Your task to perform on an android device: open app "Paramount+ | Peak Streaming" Image 0: 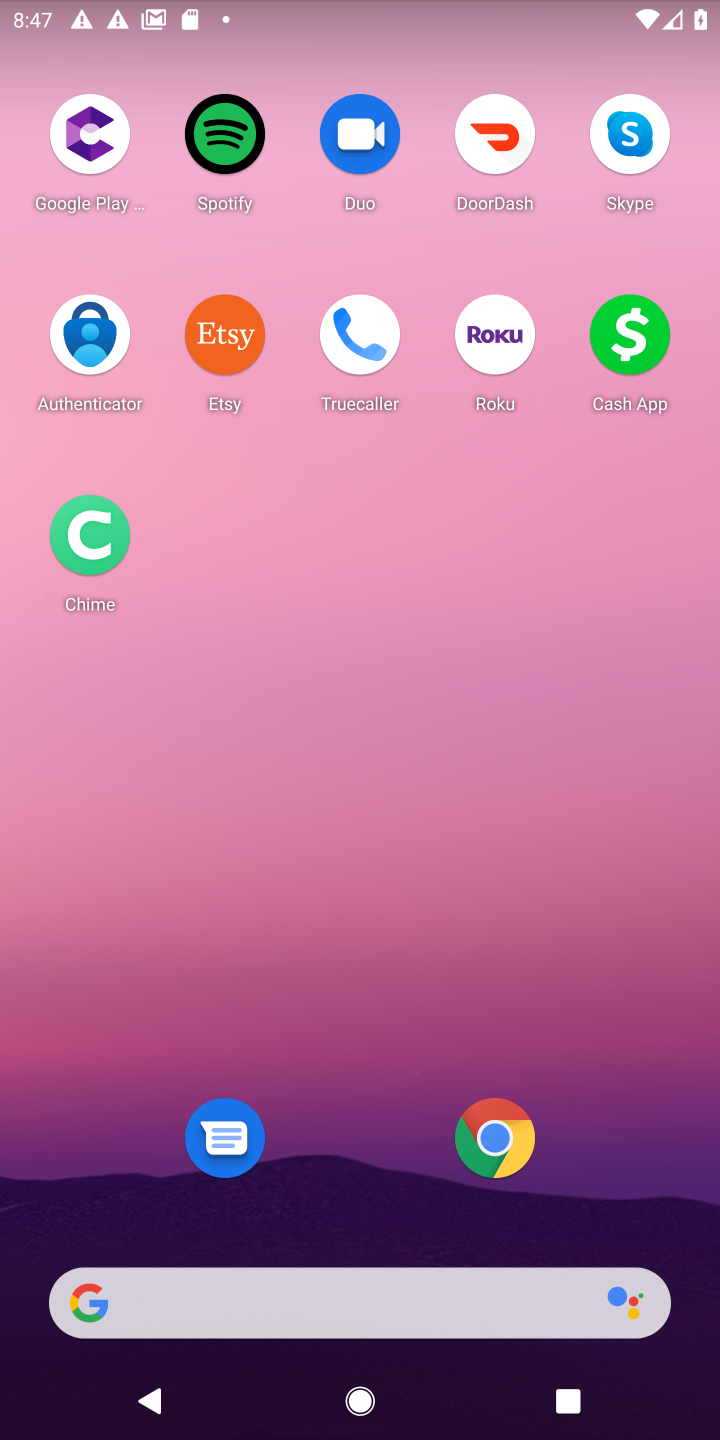
Step 0: drag from (371, 1254) to (441, 106)
Your task to perform on an android device: open app "Paramount+ | Peak Streaming" Image 1: 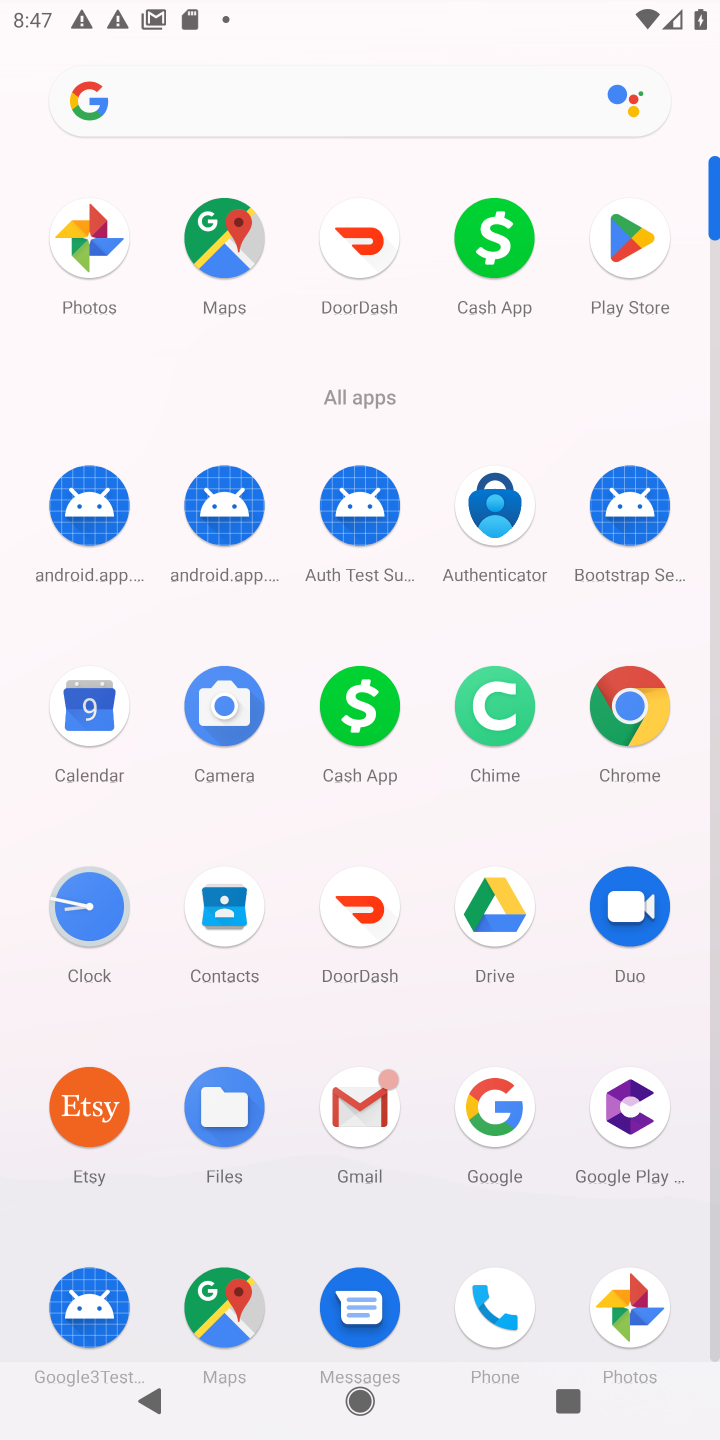
Step 1: click (613, 277)
Your task to perform on an android device: open app "Paramount+ | Peak Streaming" Image 2: 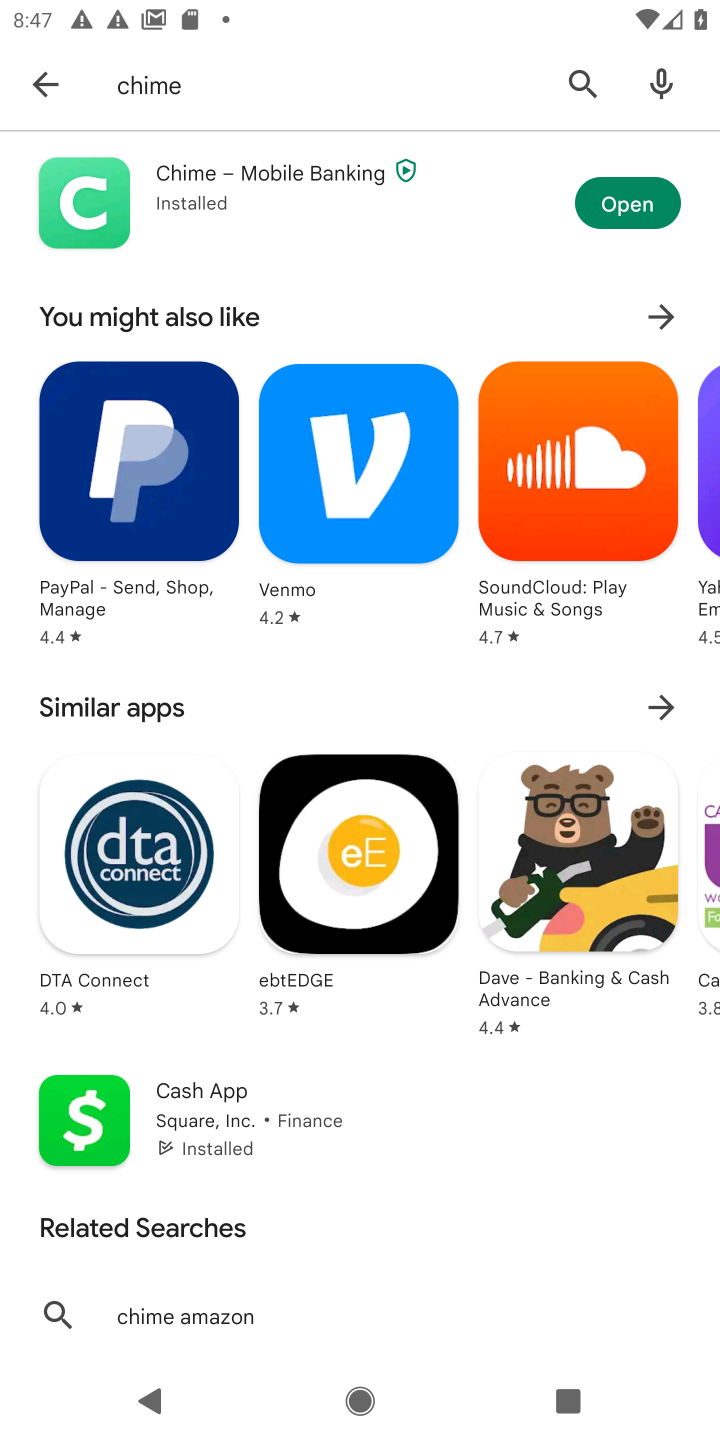
Step 2: click (577, 99)
Your task to perform on an android device: open app "Paramount+ | Peak Streaming" Image 3: 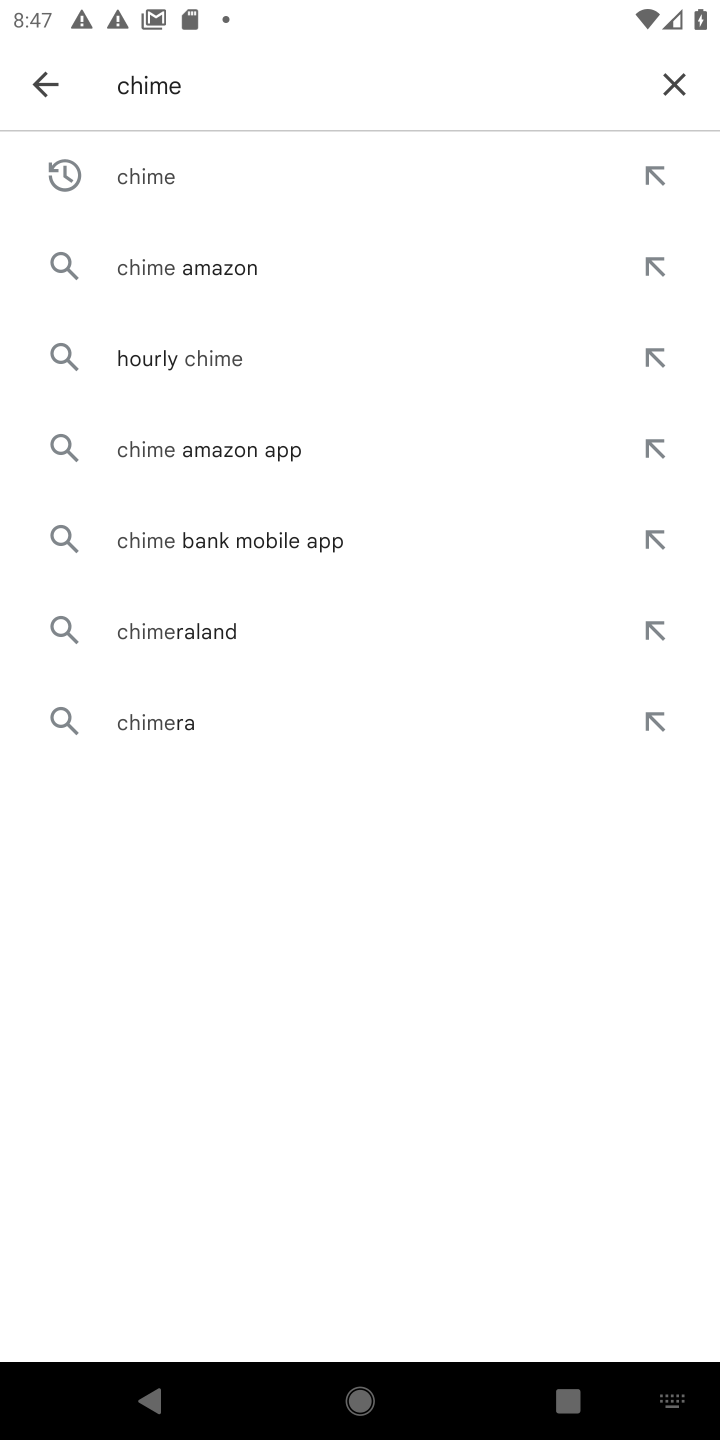
Step 3: click (682, 91)
Your task to perform on an android device: open app "Paramount+ | Peak Streaming" Image 4: 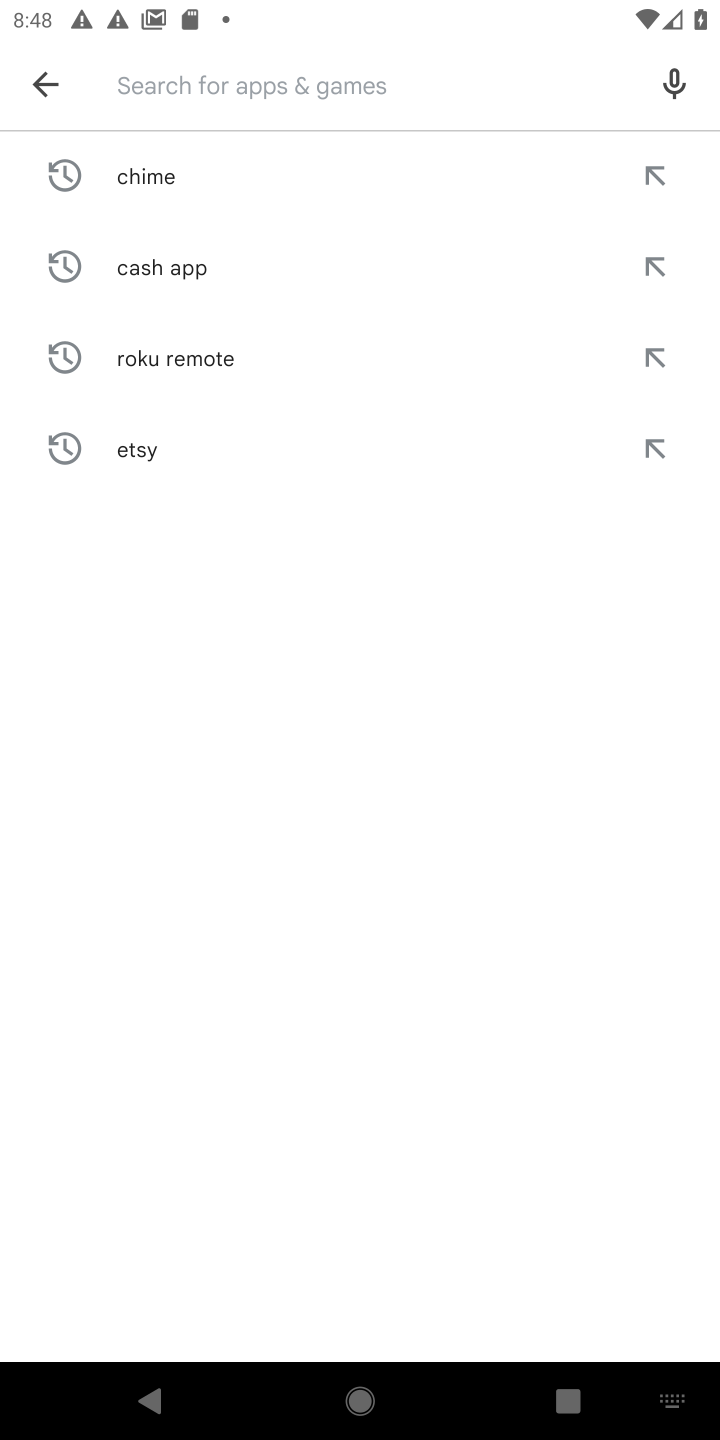
Step 4: type "paramaunt"
Your task to perform on an android device: open app "Paramount+ | Peak Streaming" Image 5: 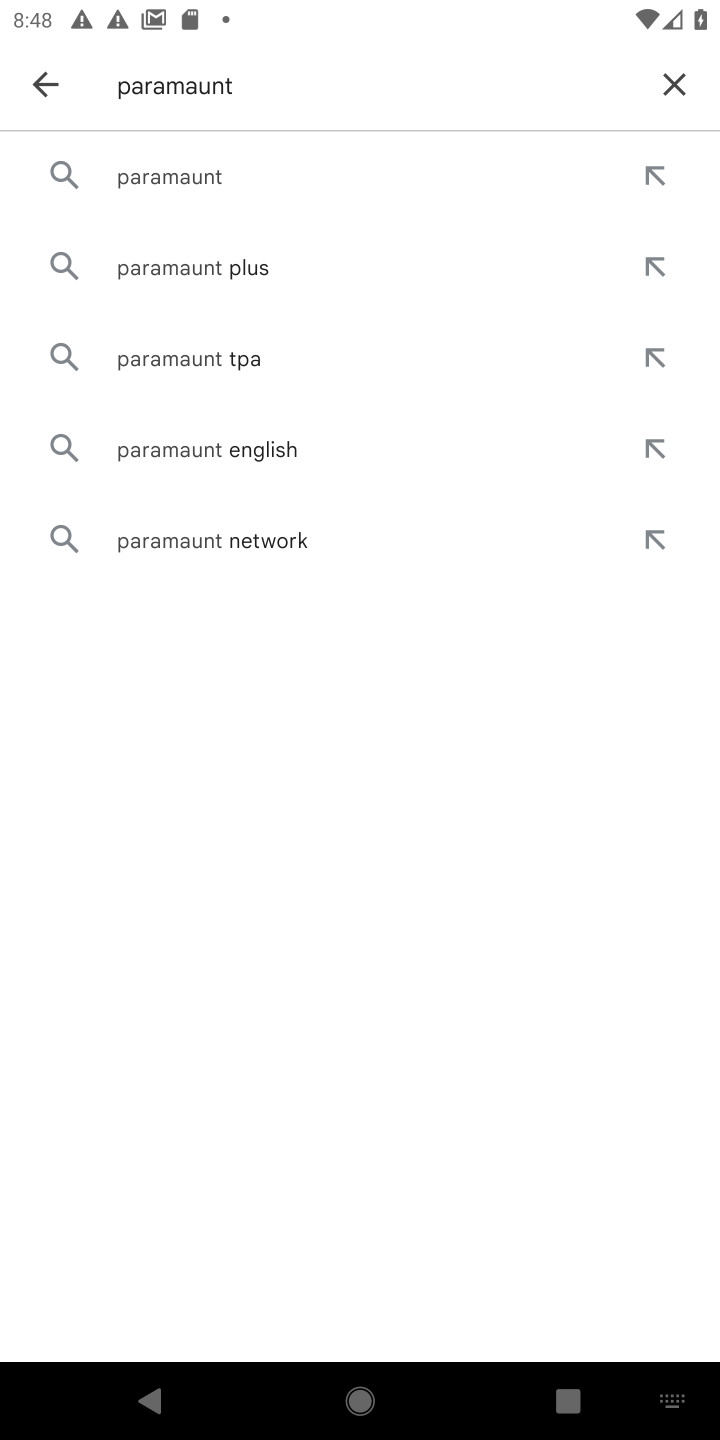
Step 5: click (310, 251)
Your task to perform on an android device: open app "Paramount+ | Peak Streaming" Image 6: 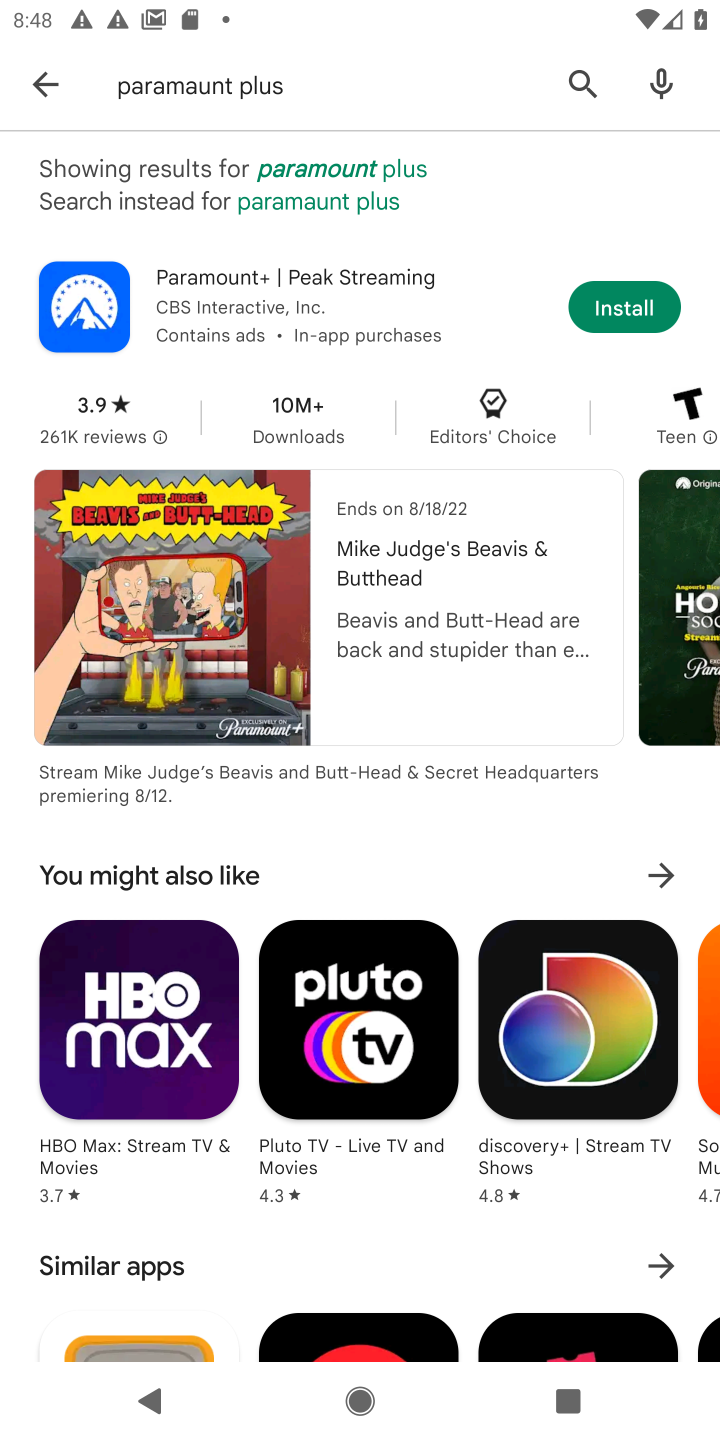
Step 6: click (619, 297)
Your task to perform on an android device: open app "Paramount+ | Peak Streaming" Image 7: 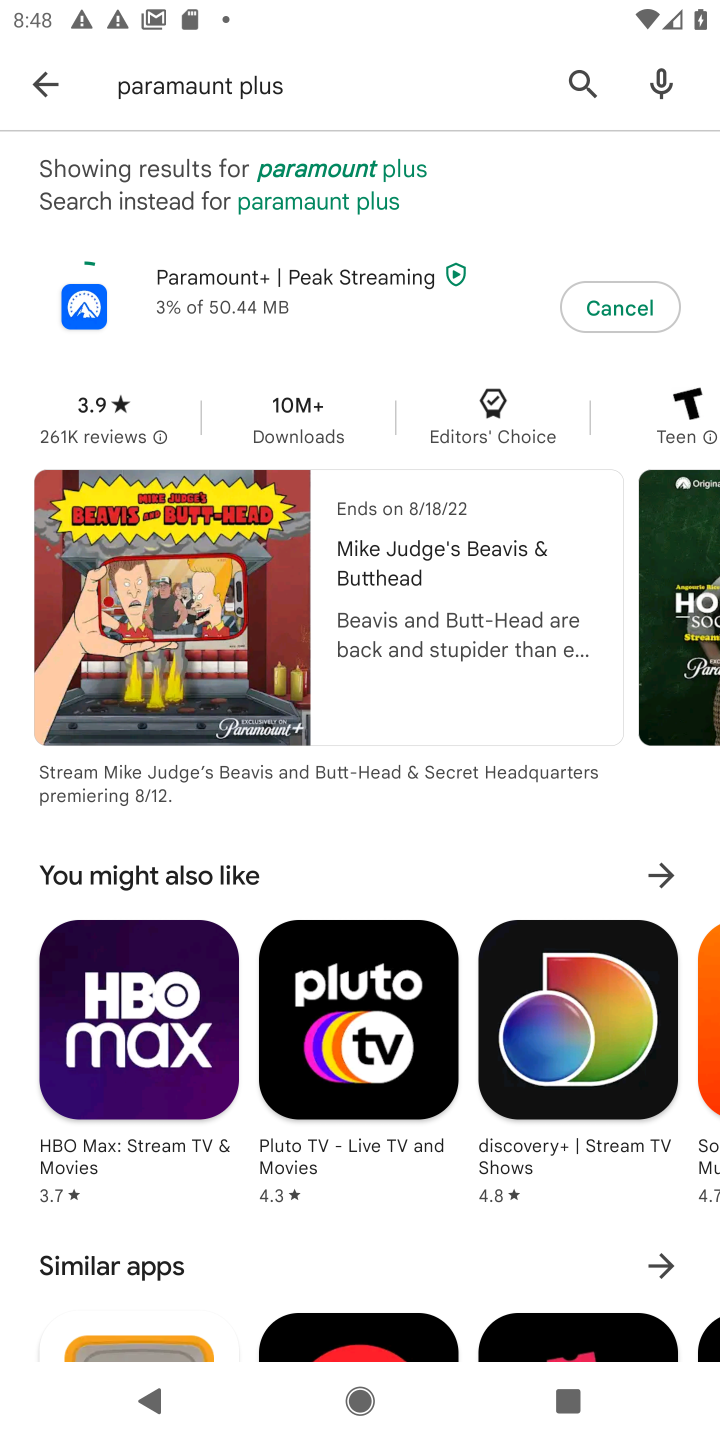
Step 7: task complete